Your task to perform on an android device: toggle priority inbox in the gmail app Image 0: 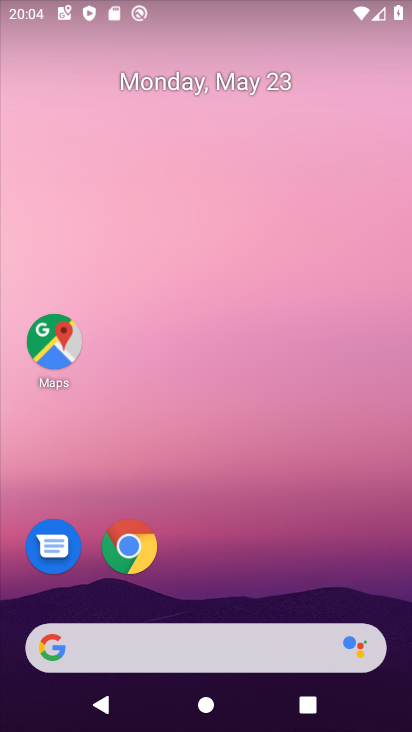
Step 0: drag from (390, 592) to (350, 218)
Your task to perform on an android device: toggle priority inbox in the gmail app Image 1: 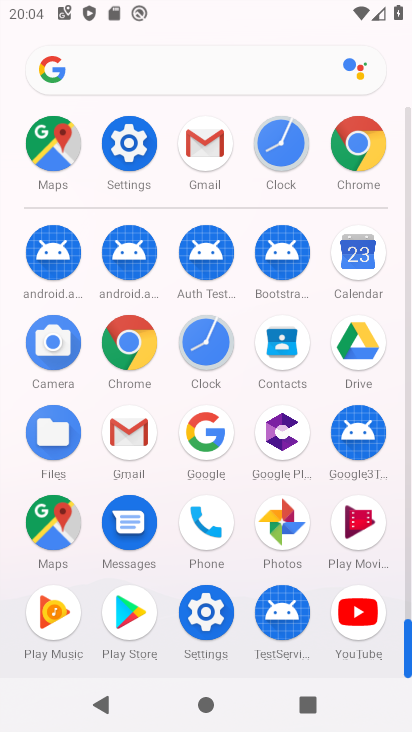
Step 1: click (139, 452)
Your task to perform on an android device: toggle priority inbox in the gmail app Image 2: 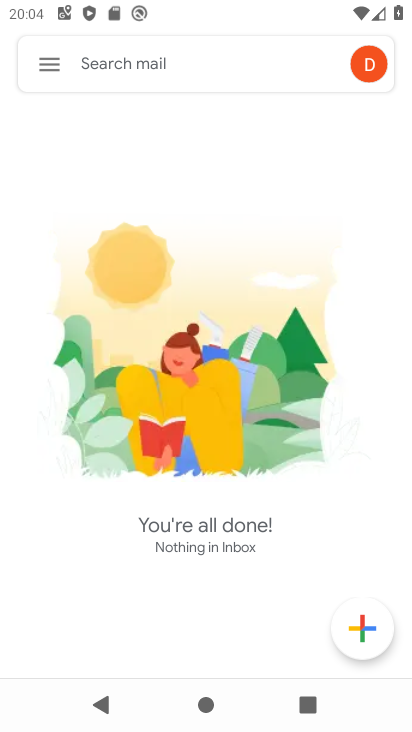
Step 2: click (52, 69)
Your task to perform on an android device: toggle priority inbox in the gmail app Image 3: 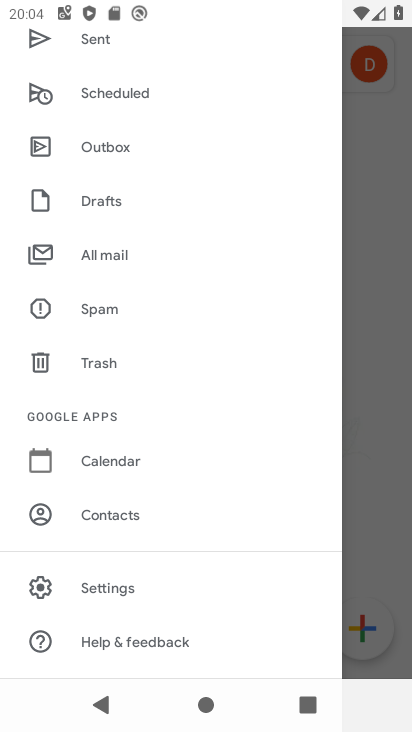
Step 3: drag from (267, 281) to (285, 389)
Your task to perform on an android device: toggle priority inbox in the gmail app Image 4: 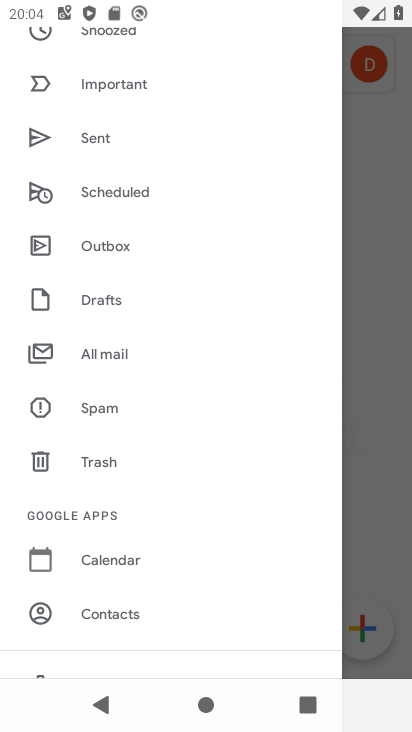
Step 4: drag from (278, 195) to (286, 311)
Your task to perform on an android device: toggle priority inbox in the gmail app Image 5: 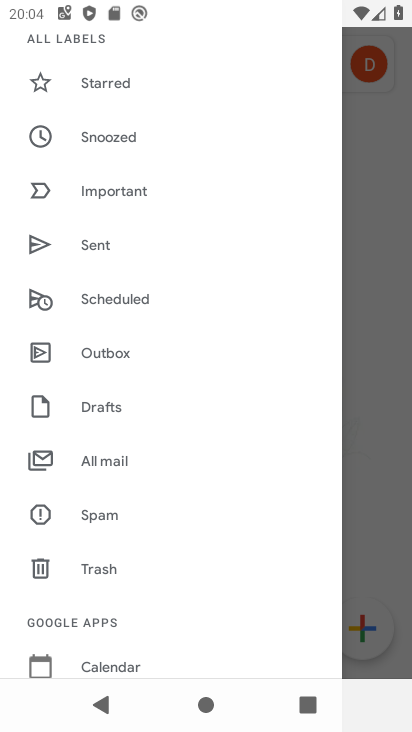
Step 5: drag from (279, 204) to (267, 324)
Your task to perform on an android device: toggle priority inbox in the gmail app Image 6: 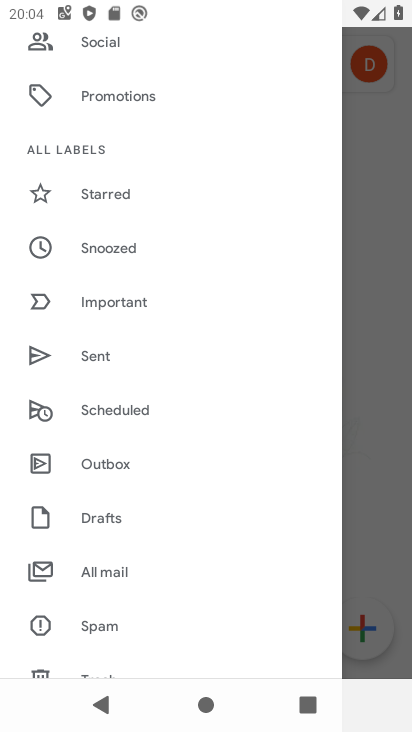
Step 6: drag from (265, 204) to (262, 322)
Your task to perform on an android device: toggle priority inbox in the gmail app Image 7: 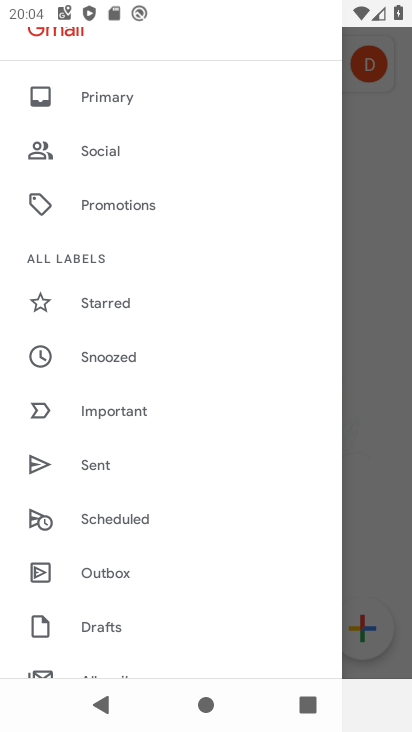
Step 7: drag from (268, 187) to (261, 322)
Your task to perform on an android device: toggle priority inbox in the gmail app Image 8: 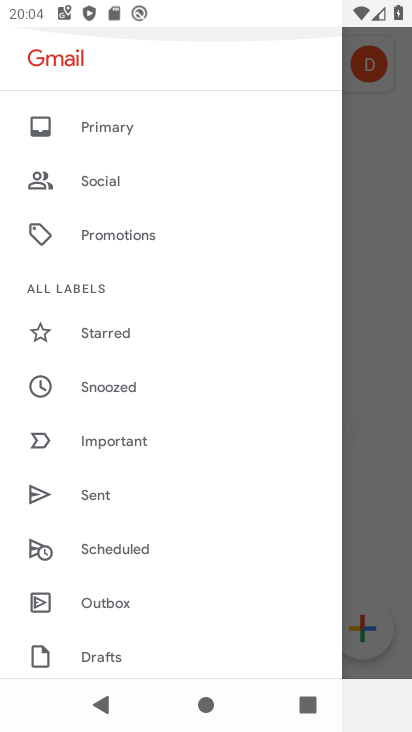
Step 8: drag from (277, 379) to (287, 278)
Your task to perform on an android device: toggle priority inbox in the gmail app Image 9: 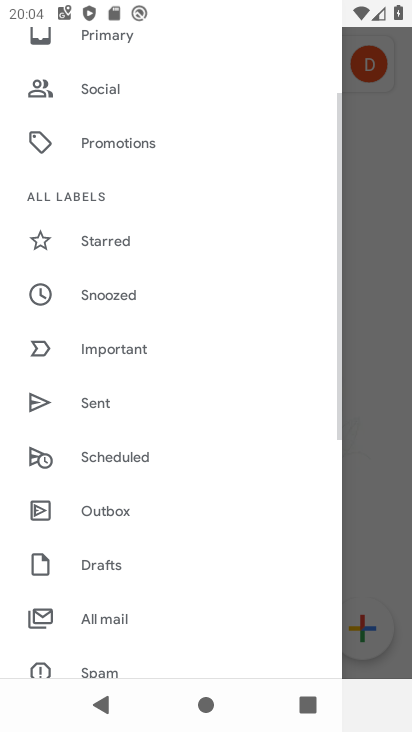
Step 9: drag from (278, 434) to (280, 321)
Your task to perform on an android device: toggle priority inbox in the gmail app Image 10: 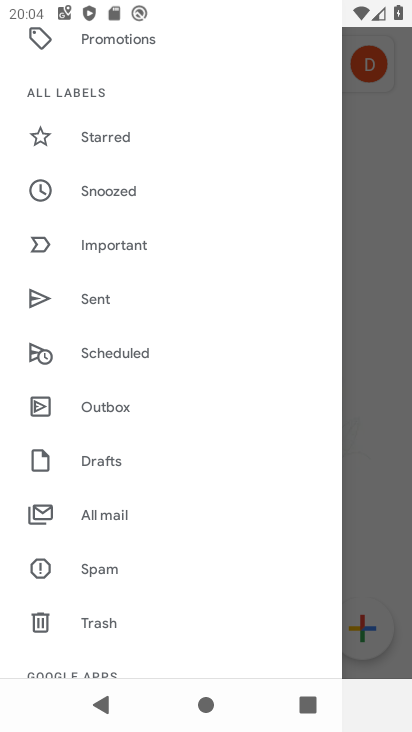
Step 10: drag from (258, 434) to (279, 320)
Your task to perform on an android device: toggle priority inbox in the gmail app Image 11: 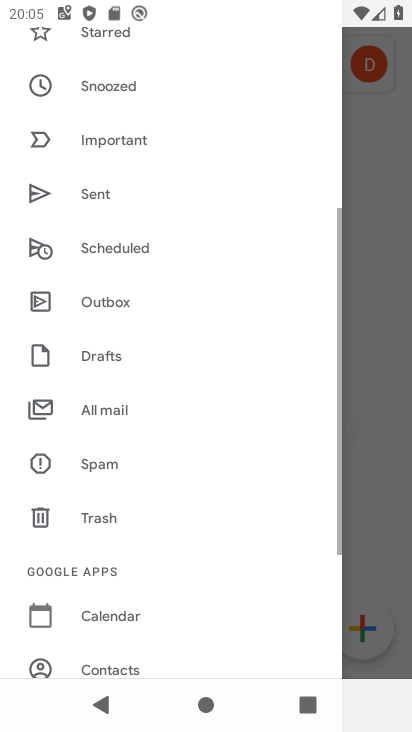
Step 11: drag from (289, 512) to (294, 397)
Your task to perform on an android device: toggle priority inbox in the gmail app Image 12: 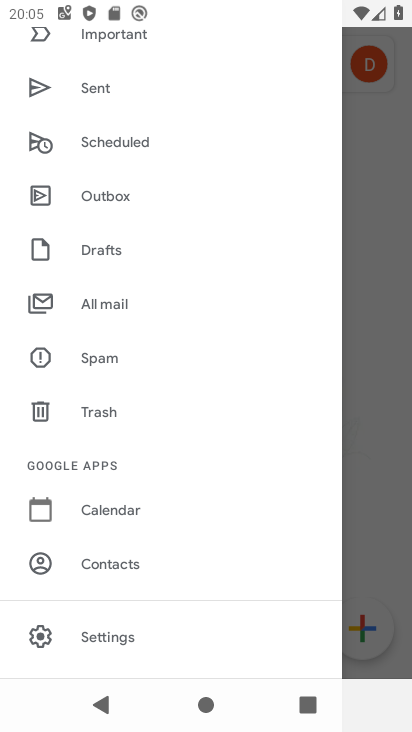
Step 12: drag from (284, 565) to (291, 460)
Your task to perform on an android device: toggle priority inbox in the gmail app Image 13: 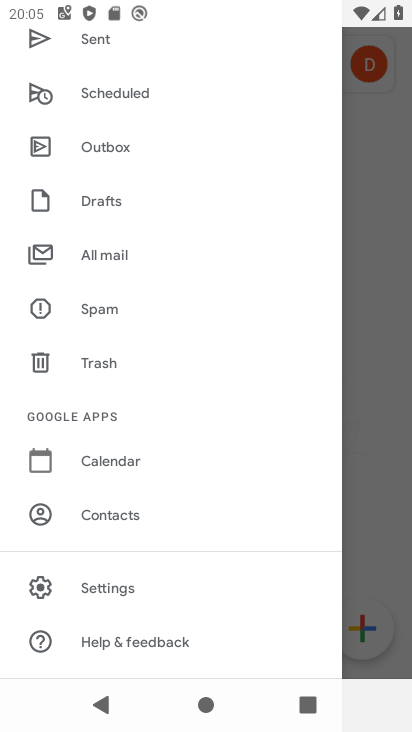
Step 13: click (169, 591)
Your task to perform on an android device: toggle priority inbox in the gmail app Image 14: 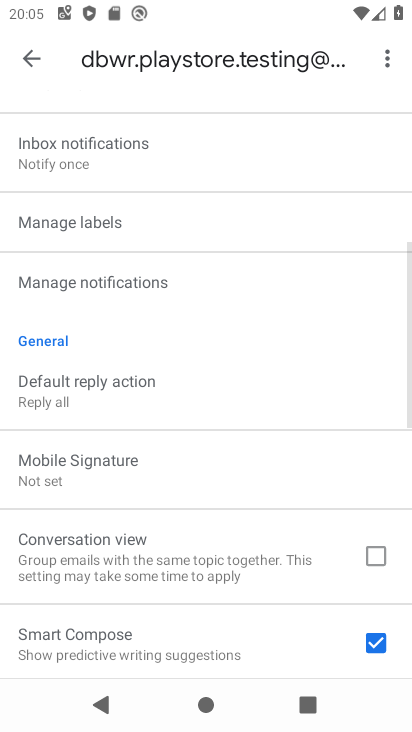
Step 14: drag from (261, 584) to (275, 491)
Your task to perform on an android device: toggle priority inbox in the gmail app Image 15: 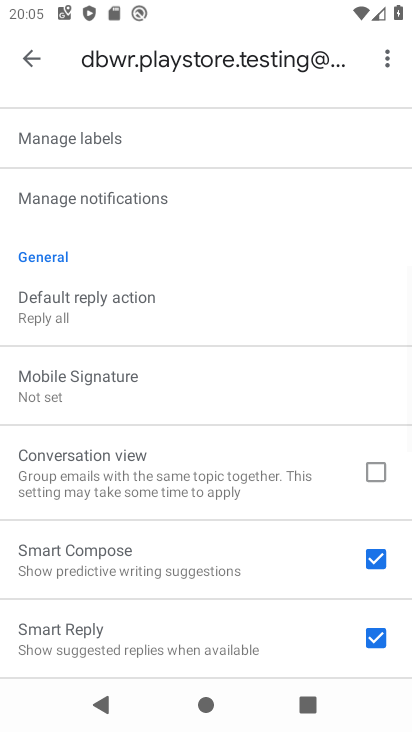
Step 15: drag from (306, 586) to (324, 465)
Your task to perform on an android device: toggle priority inbox in the gmail app Image 16: 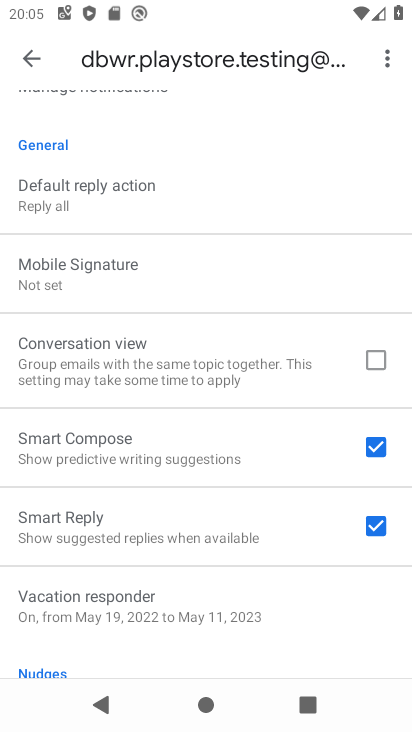
Step 16: drag from (322, 492) to (314, 349)
Your task to perform on an android device: toggle priority inbox in the gmail app Image 17: 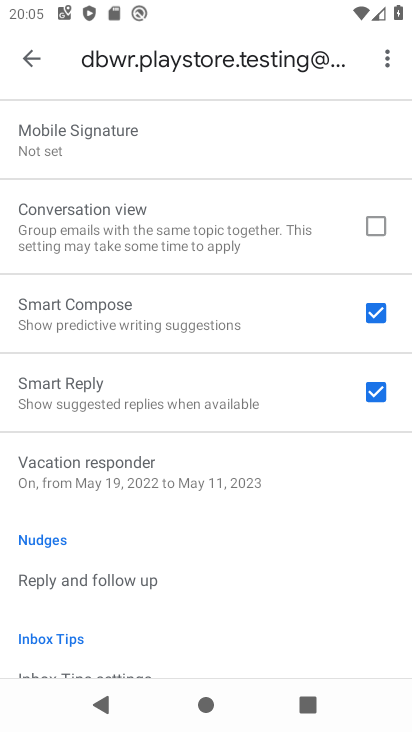
Step 17: drag from (318, 547) to (318, 419)
Your task to perform on an android device: toggle priority inbox in the gmail app Image 18: 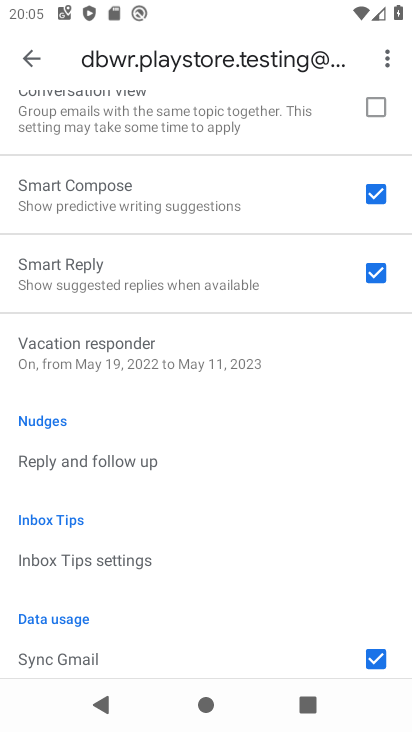
Step 18: drag from (308, 520) to (330, 428)
Your task to perform on an android device: toggle priority inbox in the gmail app Image 19: 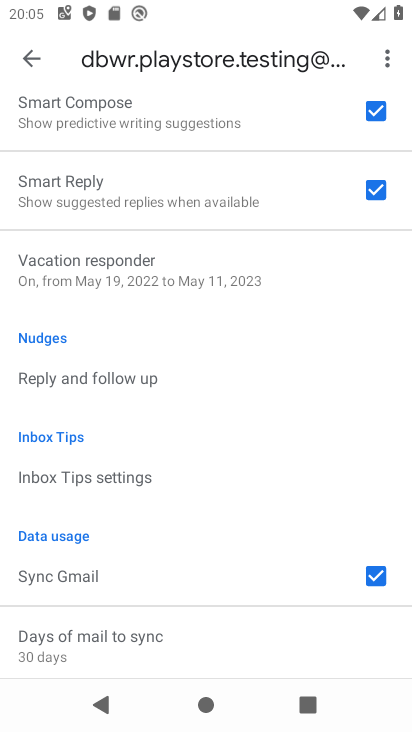
Step 19: drag from (288, 612) to (291, 448)
Your task to perform on an android device: toggle priority inbox in the gmail app Image 20: 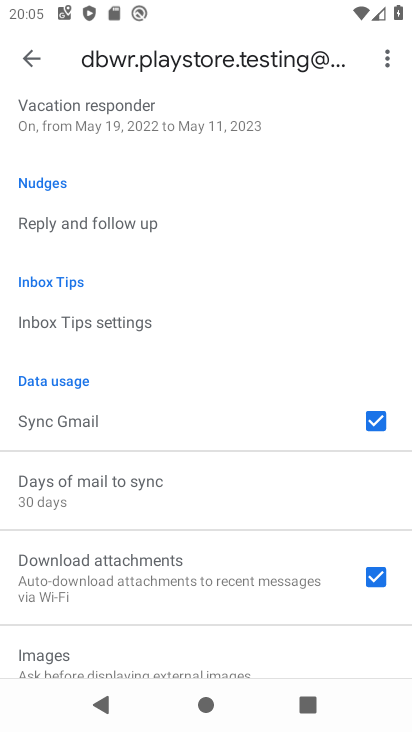
Step 20: drag from (310, 286) to (308, 409)
Your task to perform on an android device: toggle priority inbox in the gmail app Image 21: 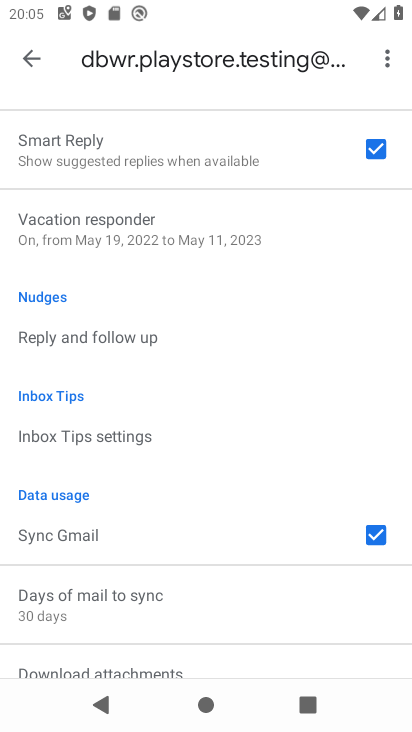
Step 21: drag from (307, 274) to (306, 393)
Your task to perform on an android device: toggle priority inbox in the gmail app Image 22: 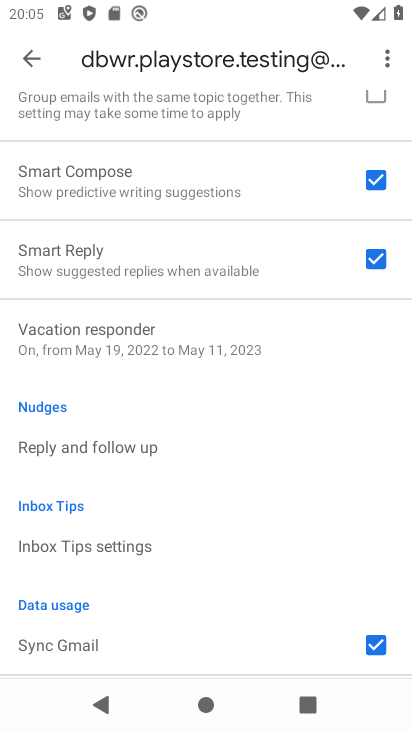
Step 22: drag from (311, 252) to (306, 360)
Your task to perform on an android device: toggle priority inbox in the gmail app Image 23: 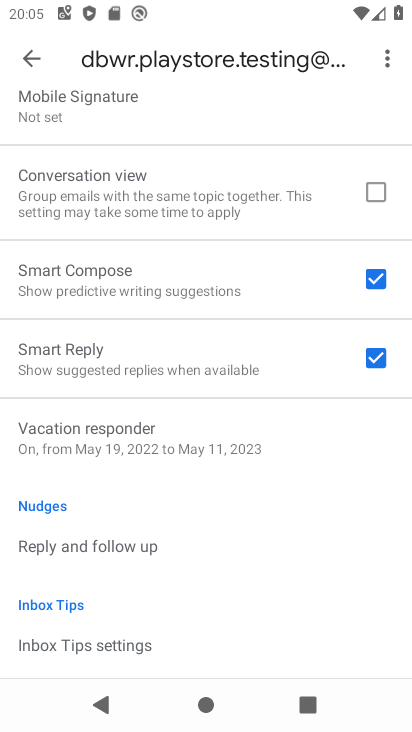
Step 23: drag from (295, 268) to (311, 383)
Your task to perform on an android device: toggle priority inbox in the gmail app Image 24: 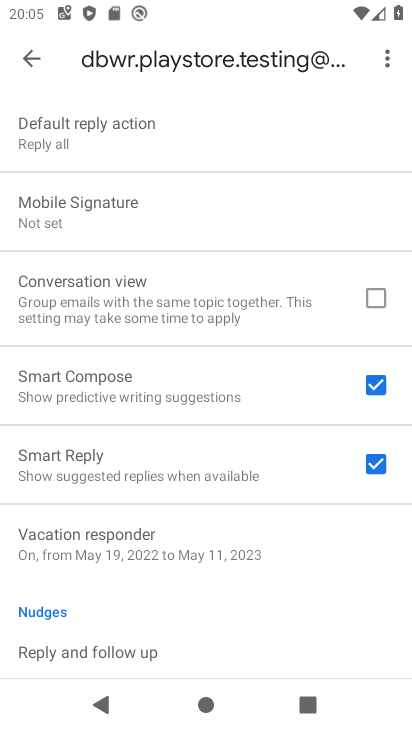
Step 24: drag from (320, 241) to (329, 359)
Your task to perform on an android device: toggle priority inbox in the gmail app Image 25: 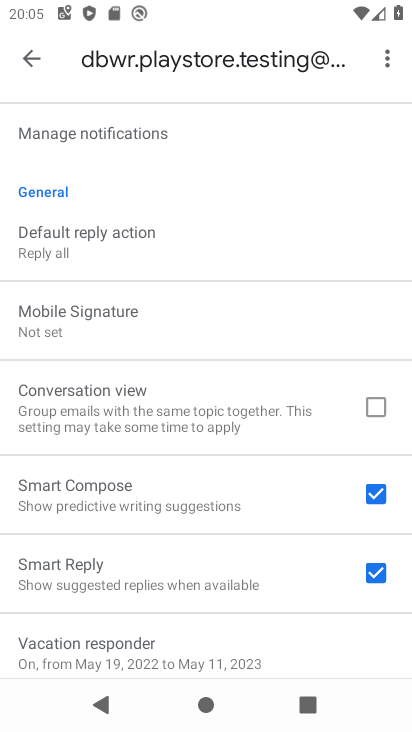
Step 25: drag from (331, 244) to (328, 373)
Your task to perform on an android device: toggle priority inbox in the gmail app Image 26: 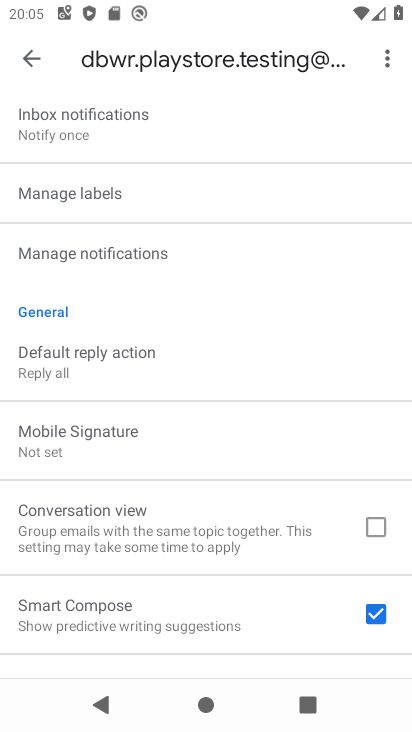
Step 26: drag from (313, 236) to (302, 375)
Your task to perform on an android device: toggle priority inbox in the gmail app Image 27: 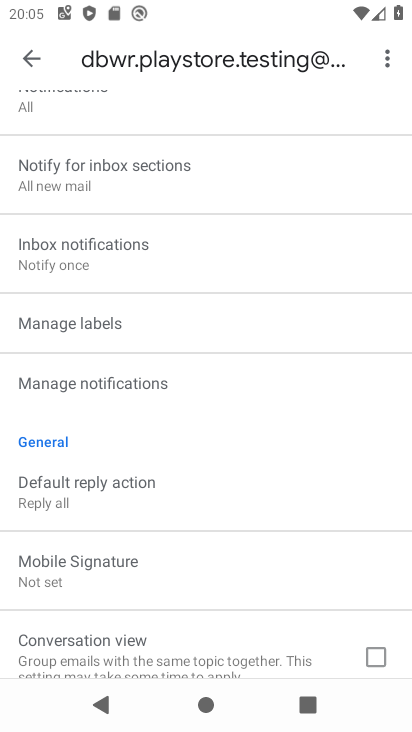
Step 27: drag from (306, 223) to (310, 359)
Your task to perform on an android device: toggle priority inbox in the gmail app Image 28: 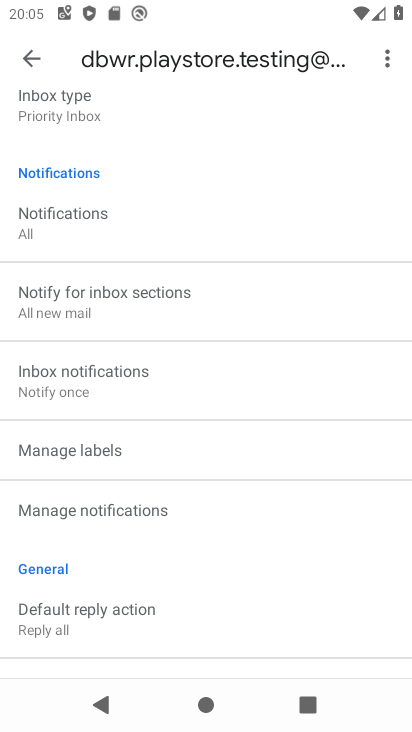
Step 28: drag from (313, 245) to (292, 377)
Your task to perform on an android device: toggle priority inbox in the gmail app Image 29: 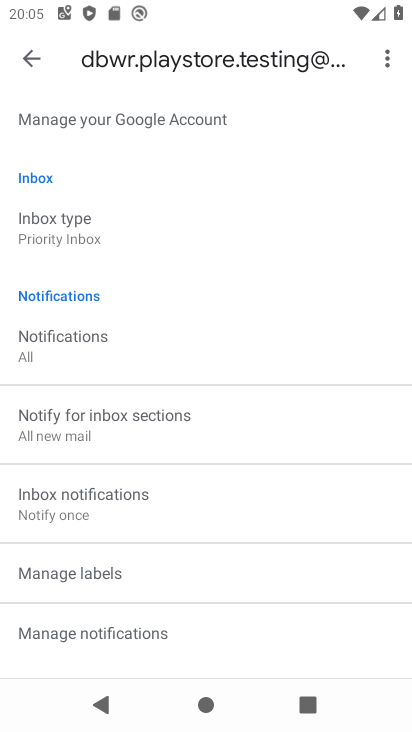
Step 29: drag from (289, 238) to (278, 373)
Your task to perform on an android device: toggle priority inbox in the gmail app Image 30: 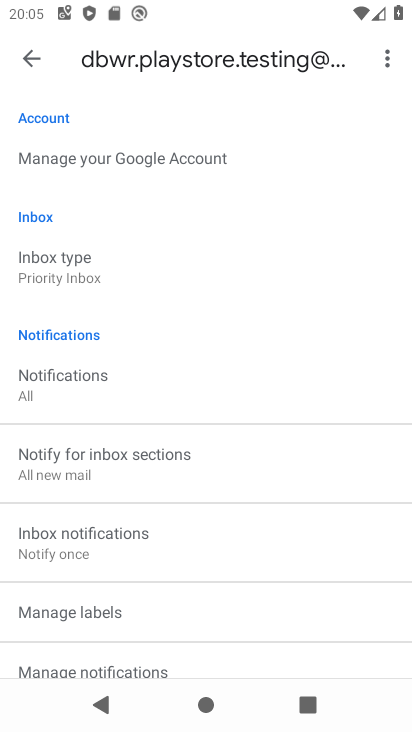
Step 30: click (111, 271)
Your task to perform on an android device: toggle priority inbox in the gmail app Image 31: 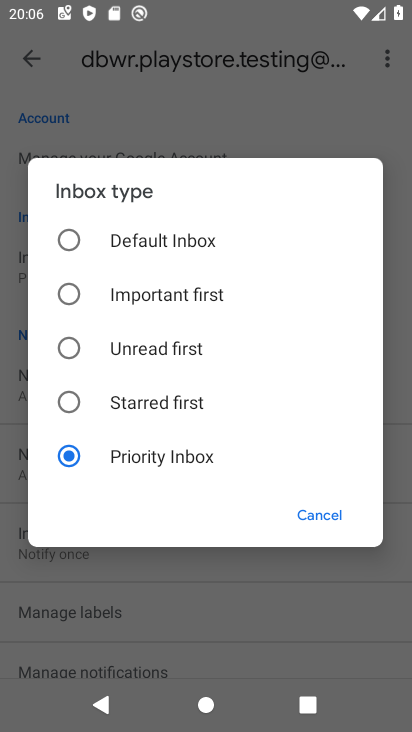
Step 31: task complete